Your task to perform on an android device: Go to eBay Image 0: 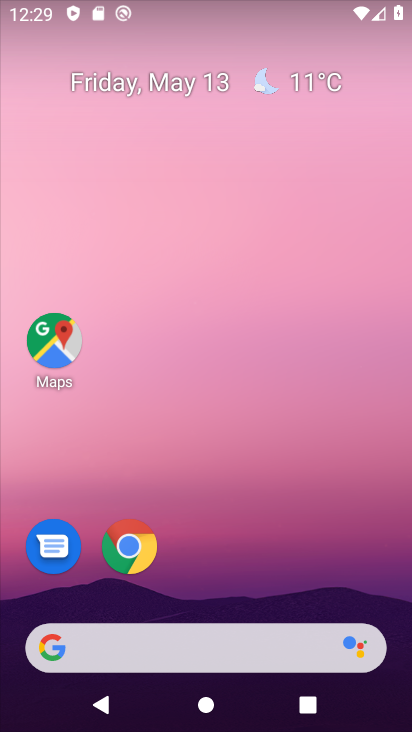
Step 0: drag from (242, 567) to (327, 139)
Your task to perform on an android device: Go to eBay Image 1: 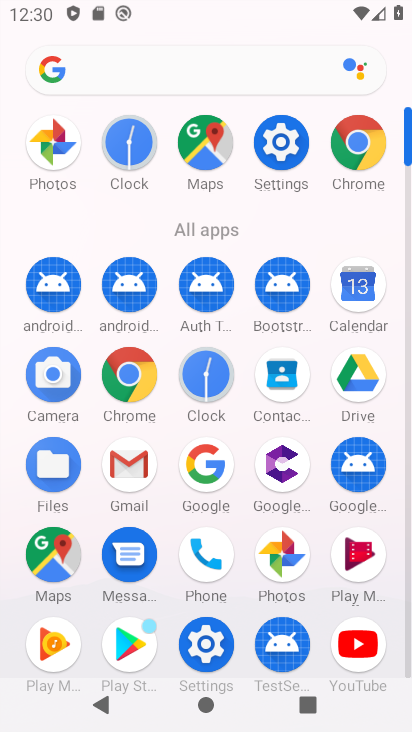
Step 1: click (353, 145)
Your task to perform on an android device: Go to eBay Image 2: 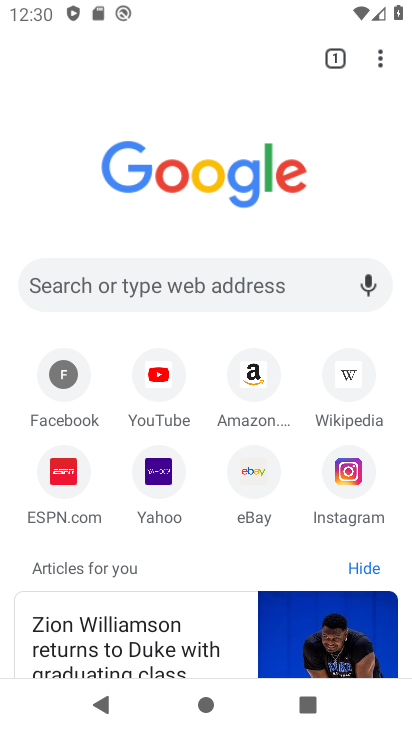
Step 2: click (250, 486)
Your task to perform on an android device: Go to eBay Image 3: 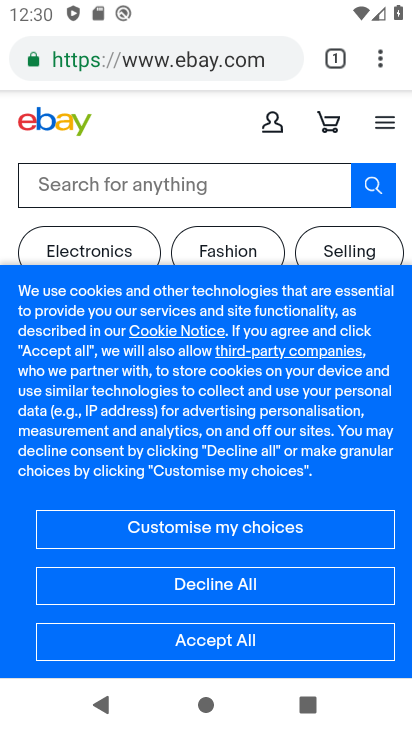
Step 3: task complete